Your task to perform on an android device: turn on location history Image 0: 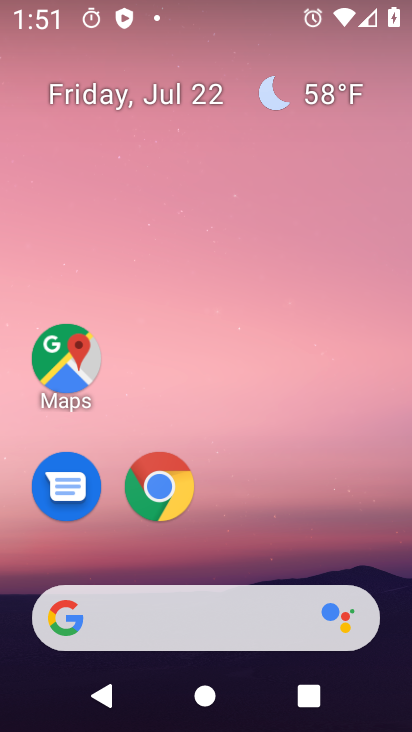
Step 0: drag from (362, 519) to (375, 143)
Your task to perform on an android device: turn on location history Image 1: 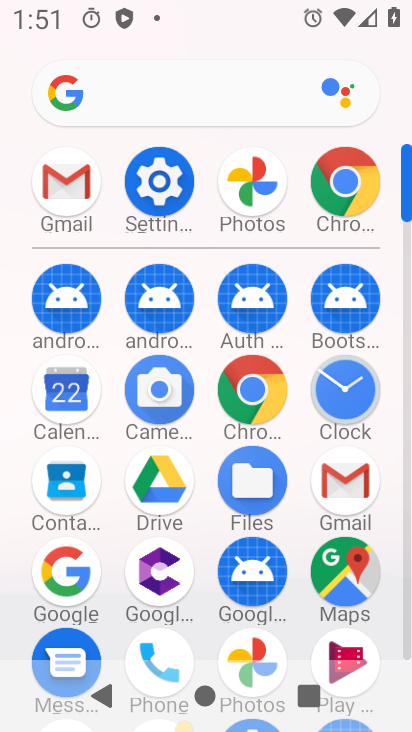
Step 1: click (163, 178)
Your task to perform on an android device: turn on location history Image 2: 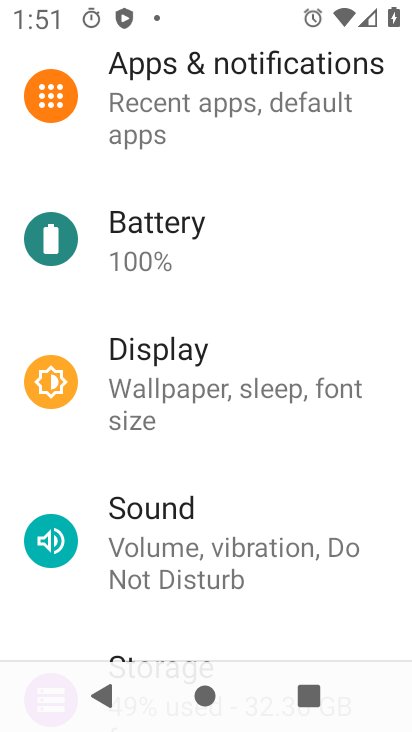
Step 2: drag from (363, 213) to (363, 294)
Your task to perform on an android device: turn on location history Image 3: 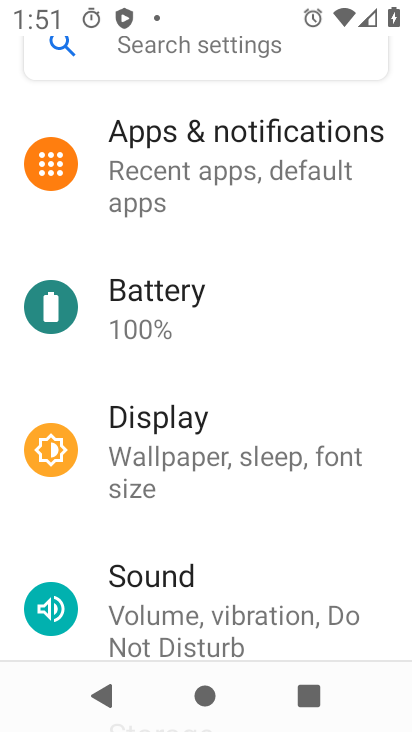
Step 3: drag from (368, 181) to (369, 344)
Your task to perform on an android device: turn on location history Image 4: 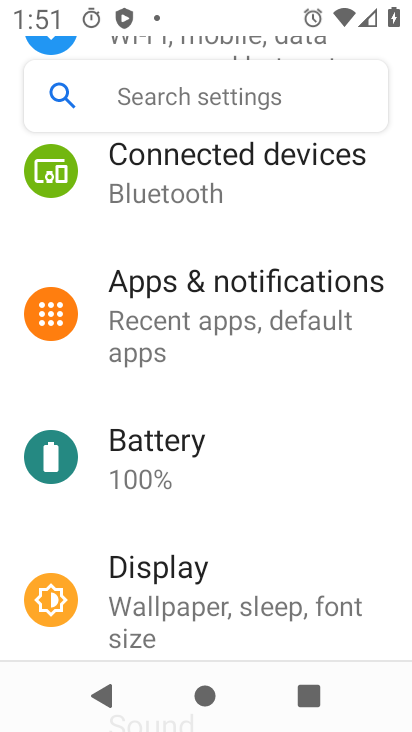
Step 4: drag from (326, 506) to (323, 405)
Your task to perform on an android device: turn on location history Image 5: 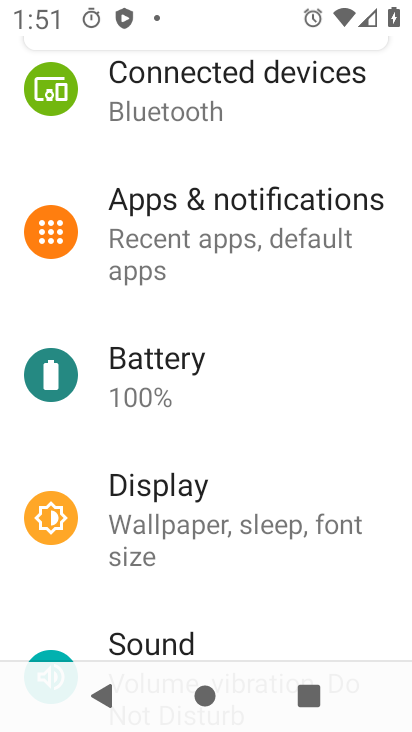
Step 5: drag from (348, 560) to (353, 458)
Your task to perform on an android device: turn on location history Image 6: 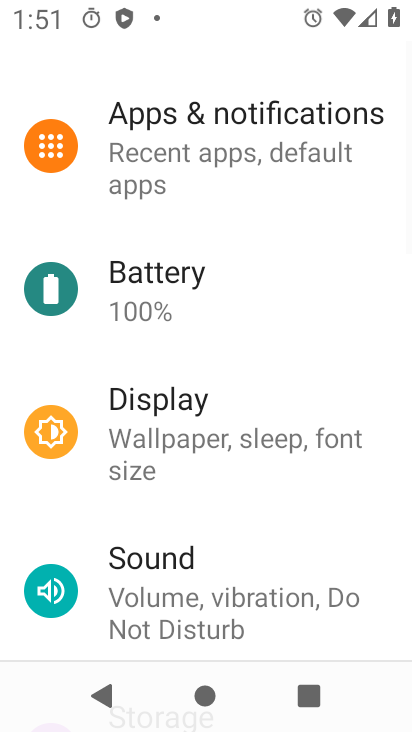
Step 6: drag from (362, 545) to (364, 448)
Your task to perform on an android device: turn on location history Image 7: 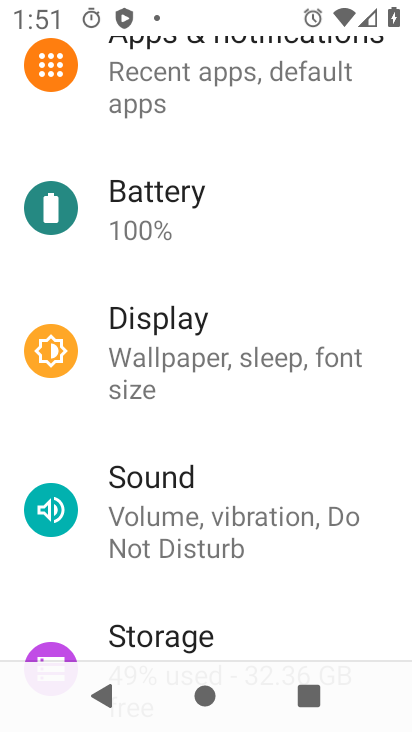
Step 7: drag from (355, 516) to (357, 419)
Your task to perform on an android device: turn on location history Image 8: 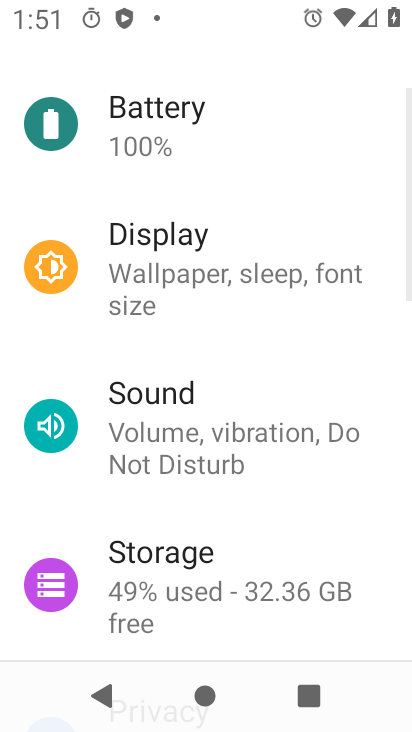
Step 8: drag from (350, 502) to (354, 404)
Your task to perform on an android device: turn on location history Image 9: 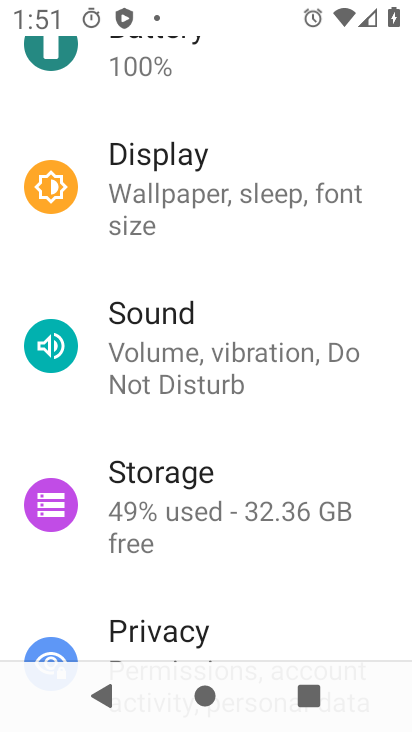
Step 9: drag from (337, 497) to (337, 380)
Your task to perform on an android device: turn on location history Image 10: 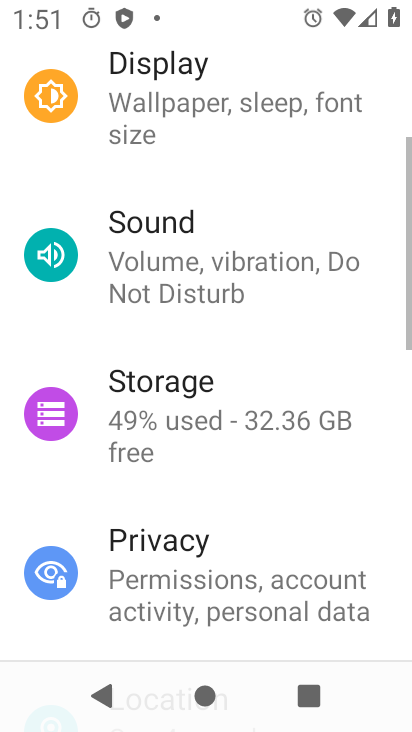
Step 10: drag from (332, 493) to (338, 402)
Your task to perform on an android device: turn on location history Image 11: 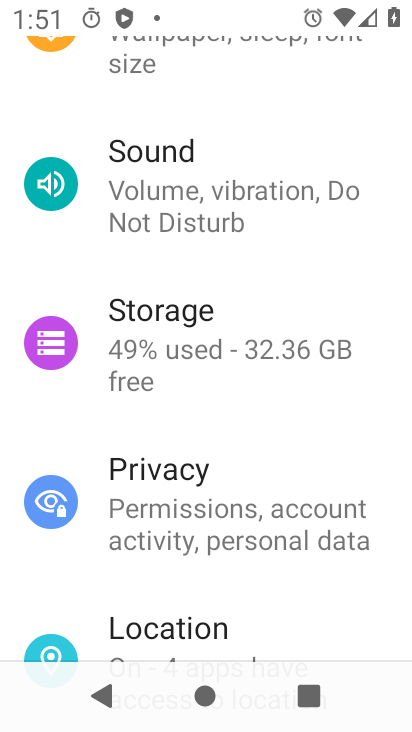
Step 11: drag from (338, 470) to (338, 375)
Your task to perform on an android device: turn on location history Image 12: 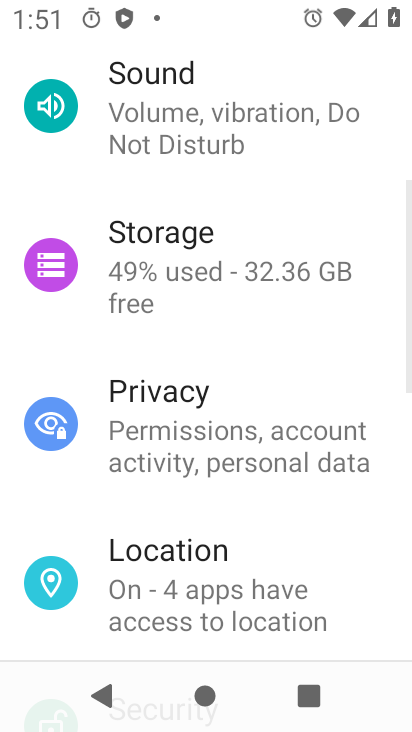
Step 12: drag from (336, 459) to (338, 368)
Your task to perform on an android device: turn on location history Image 13: 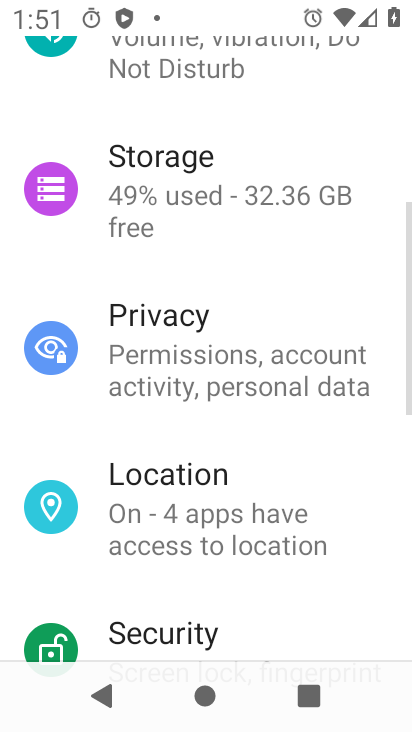
Step 13: drag from (338, 471) to (349, 350)
Your task to perform on an android device: turn on location history Image 14: 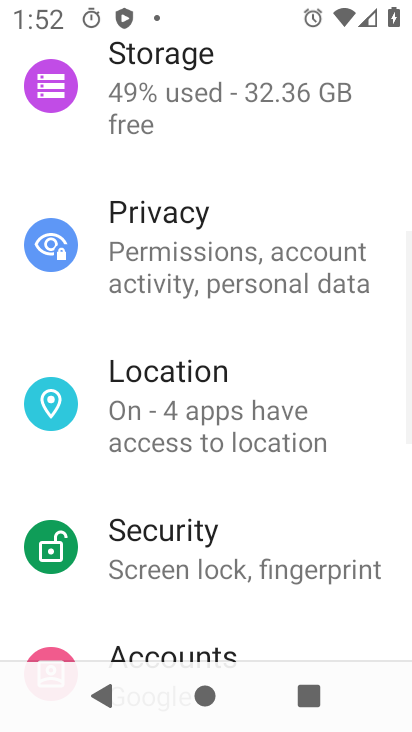
Step 14: drag from (336, 488) to (344, 364)
Your task to perform on an android device: turn on location history Image 15: 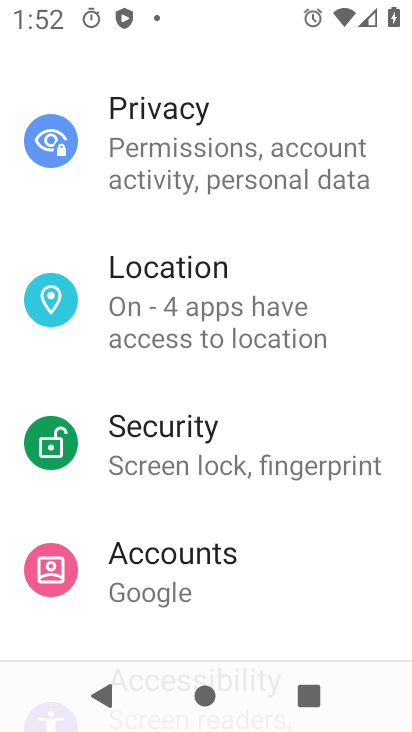
Step 15: click (299, 317)
Your task to perform on an android device: turn on location history Image 16: 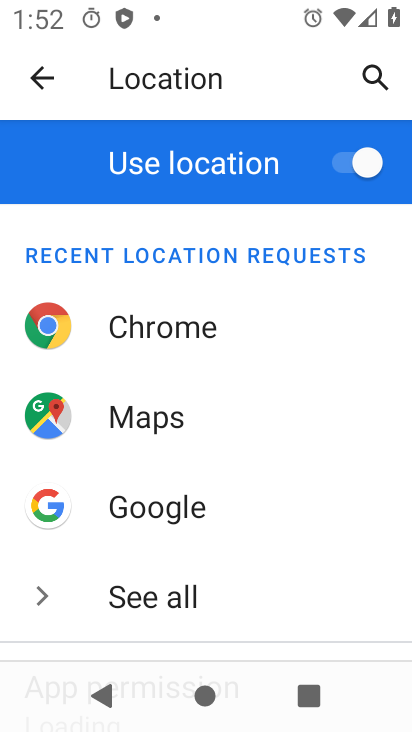
Step 16: drag from (295, 467) to (301, 373)
Your task to perform on an android device: turn on location history Image 17: 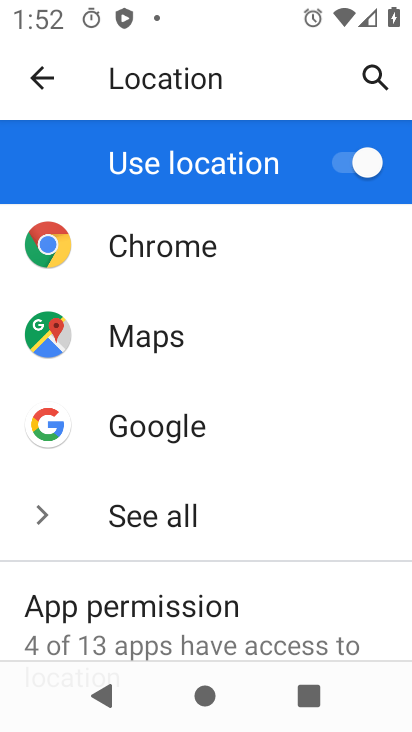
Step 17: drag from (300, 473) to (304, 378)
Your task to perform on an android device: turn on location history Image 18: 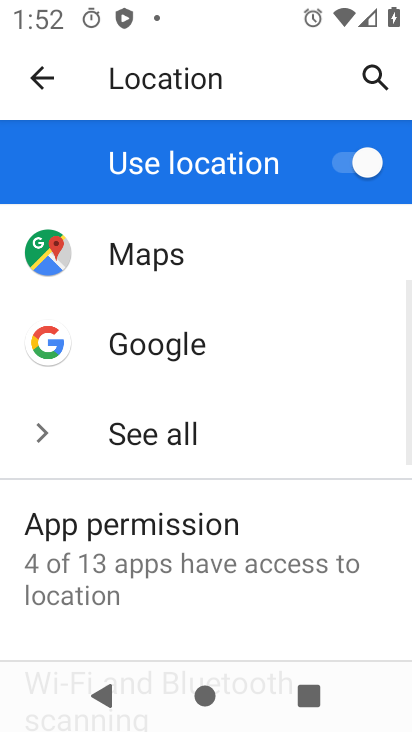
Step 18: drag from (286, 499) to (288, 374)
Your task to perform on an android device: turn on location history Image 19: 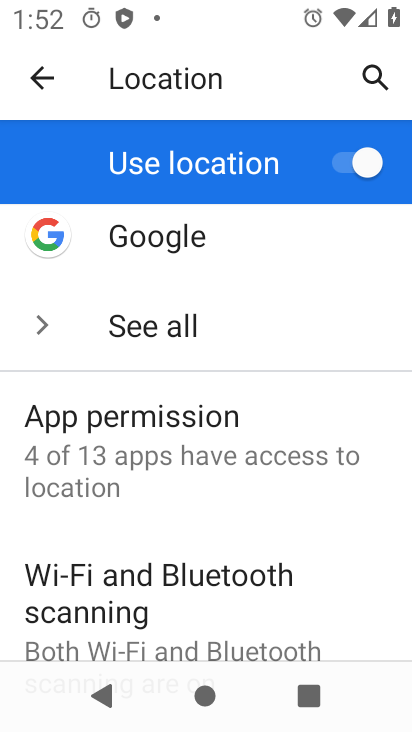
Step 19: drag from (282, 513) to (291, 364)
Your task to perform on an android device: turn on location history Image 20: 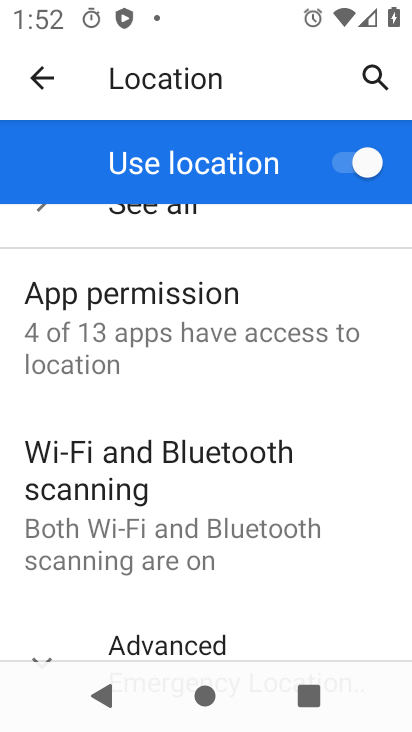
Step 20: drag from (264, 561) to (273, 438)
Your task to perform on an android device: turn on location history Image 21: 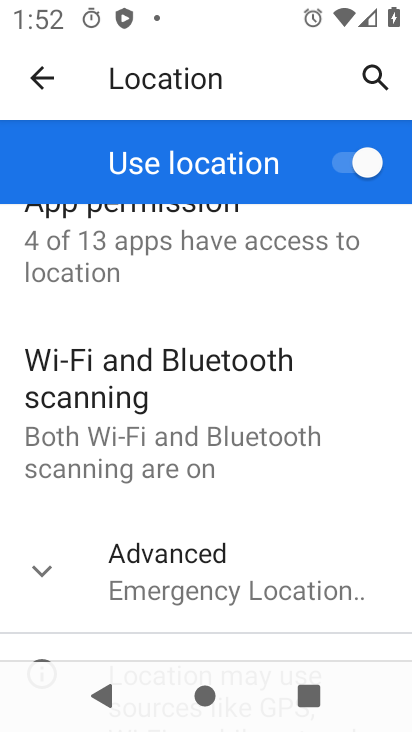
Step 21: click (262, 589)
Your task to perform on an android device: turn on location history Image 22: 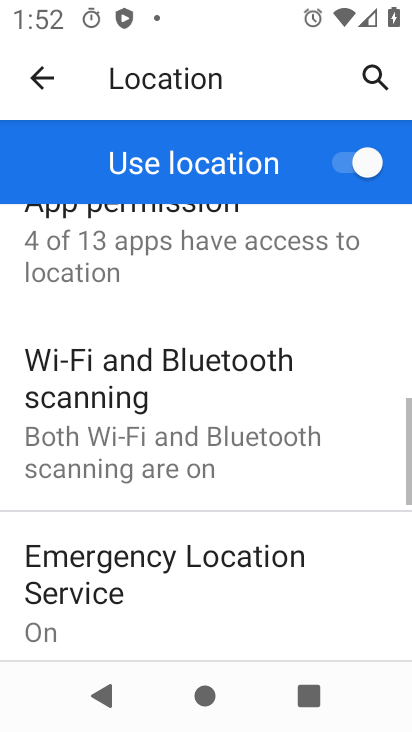
Step 22: drag from (262, 587) to (263, 462)
Your task to perform on an android device: turn on location history Image 23: 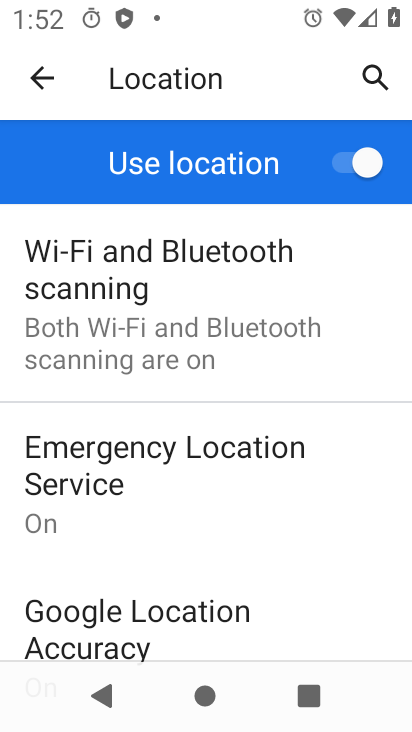
Step 23: drag from (263, 547) to (264, 445)
Your task to perform on an android device: turn on location history Image 24: 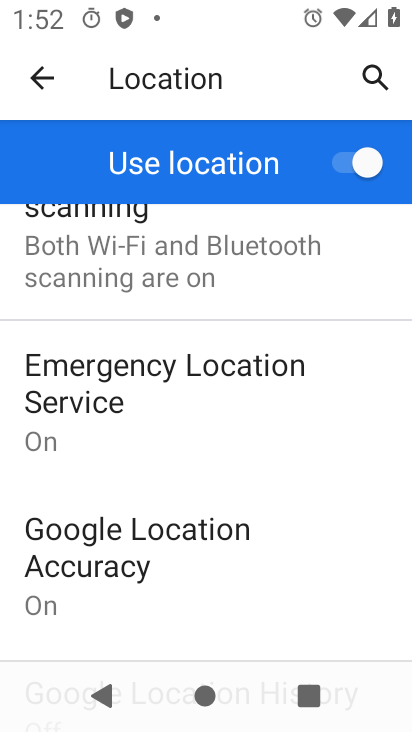
Step 24: drag from (259, 589) to (266, 456)
Your task to perform on an android device: turn on location history Image 25: 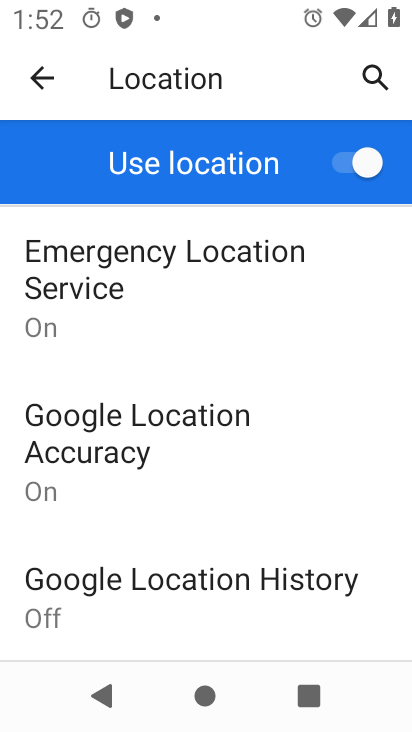
Step 25: drag from (246, 592) to (245, 496)
Your task to perform on an android device: turn on location history Image 26: 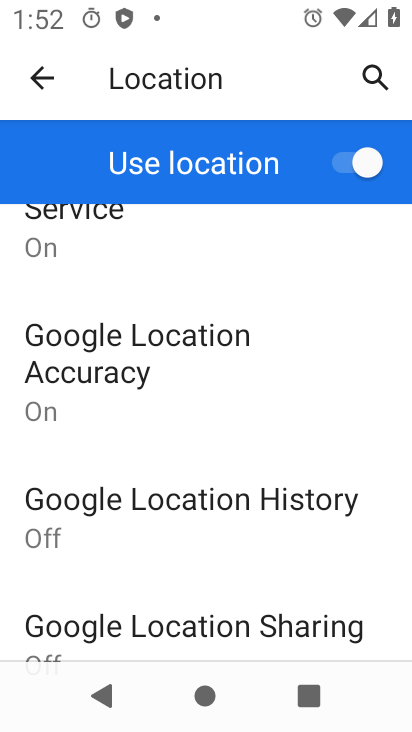
Step 26: click (242, 504)
Your task to perform on an android device: turn on location history Image 27: 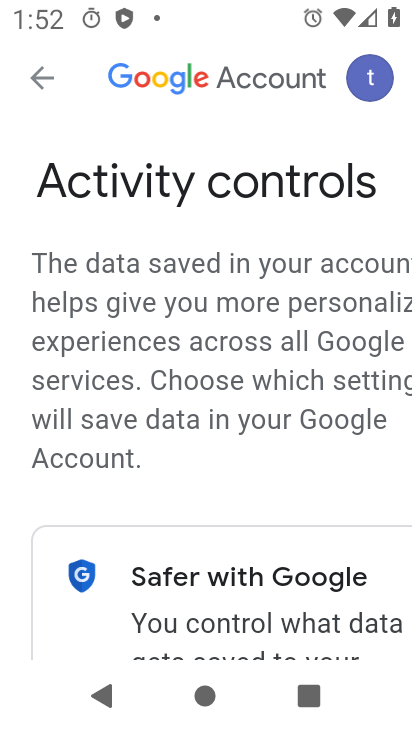
Step 27: task complete